Your task to perform on an android device: open sync settings in chrome Image 0: 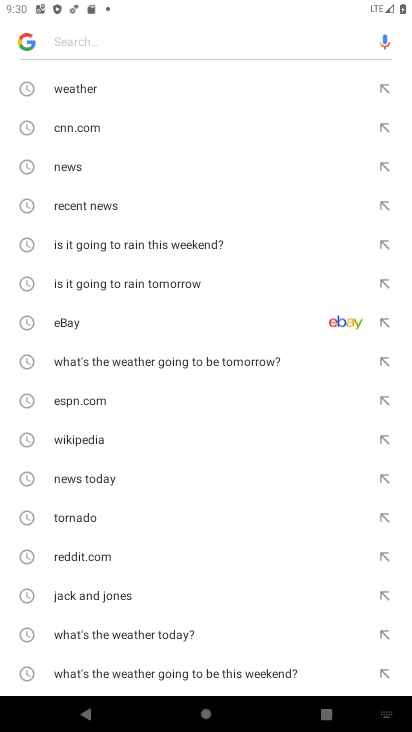
Step 0: press home button
Your task to perform on an android device: open sync settings in chrome Image 1: 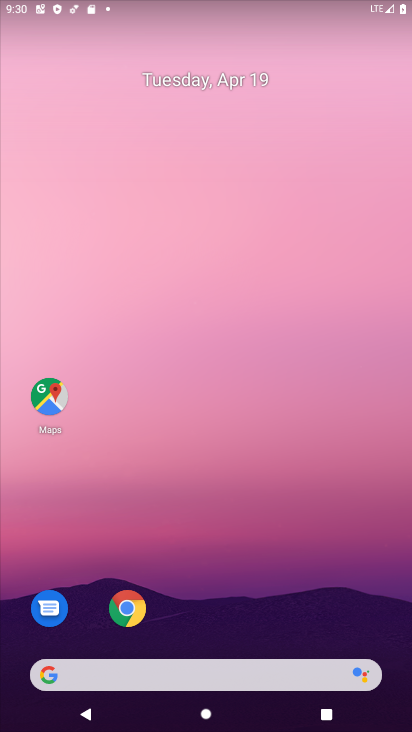
Step 1: click (126, 610)
Your task to perform on an android device: open sync settings in chrome Image 2: 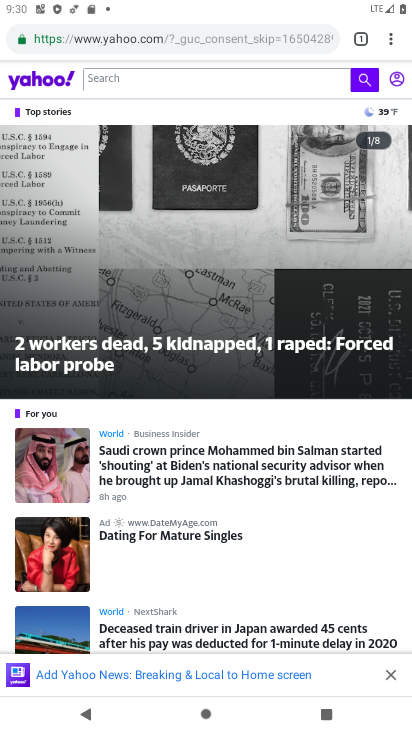
Step 2: click (388, 40)
Your task to perform on an android device: open sync settings in chrome Image 3: 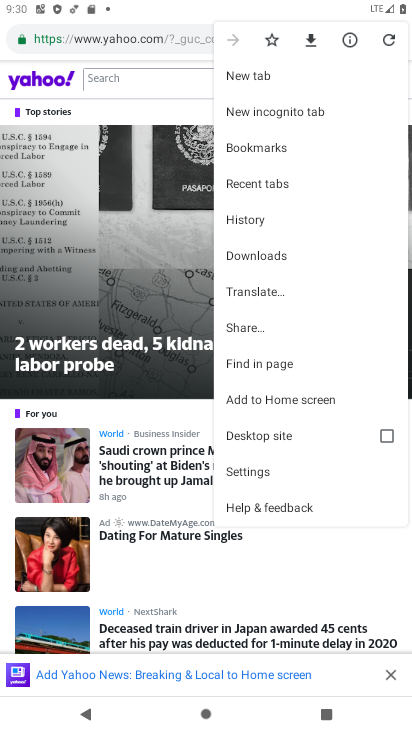
Step 3: click (256, 470)
Your task to perform on an android device: open sync settings in chrome Image 4: 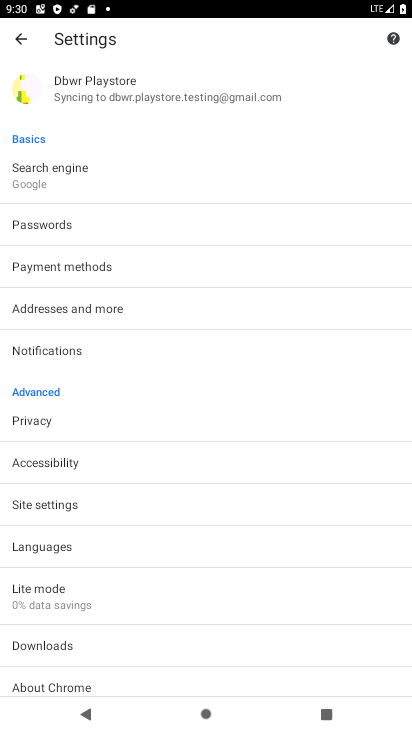
Step 4: click (89, 87)
Your task to perform on an android device: open sync settings in chrome Image 5: 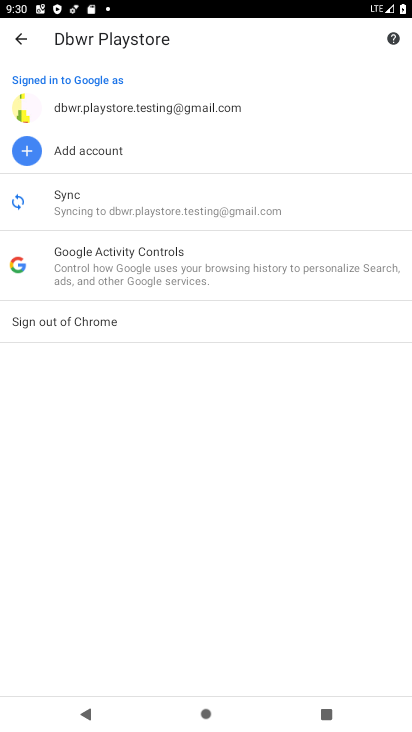
Step 5: click (64, 206)
Your task to perform on an android device: open sync settings in chrome Image 6: 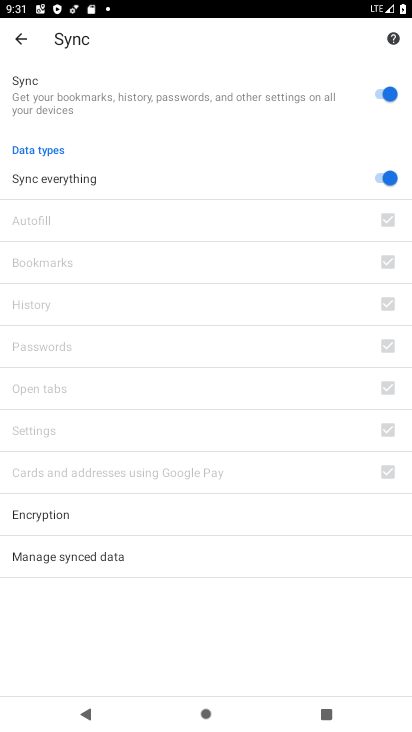
Step 6: task complete